Your task to perform on an android device: set the stopwatch Image 0: 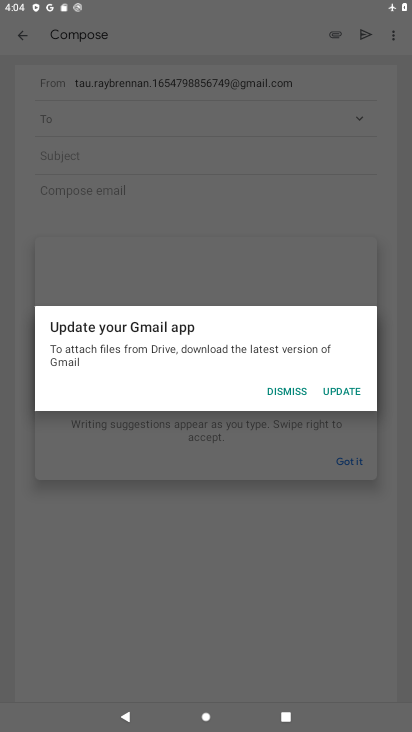
Step 0: press home button
Your task to perform on an android device: set the stopwatch Image 1: 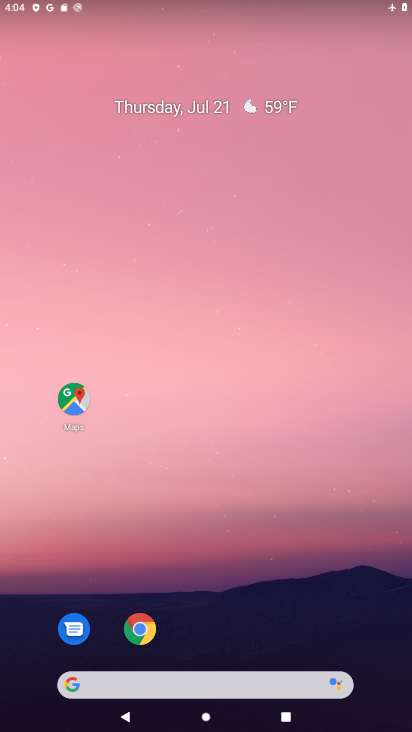
Step 1: drag from (242, 584) to (229, 113)
Your task to perform on an android device: set the stopwatch Image 2: 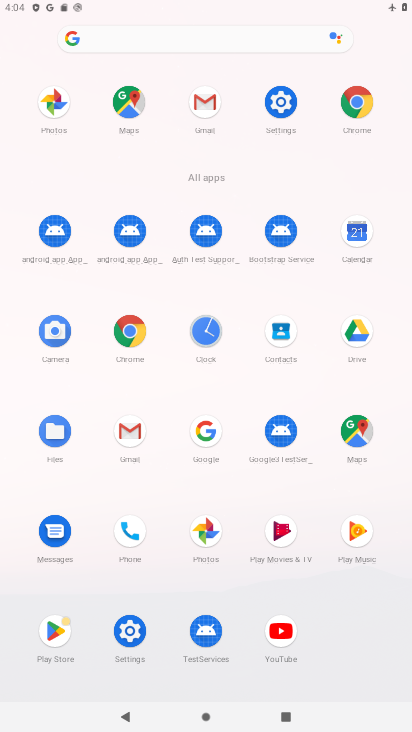
Step 2: click (201, 336)
Your task to perform on an android device: set the stopwatch Image 3: 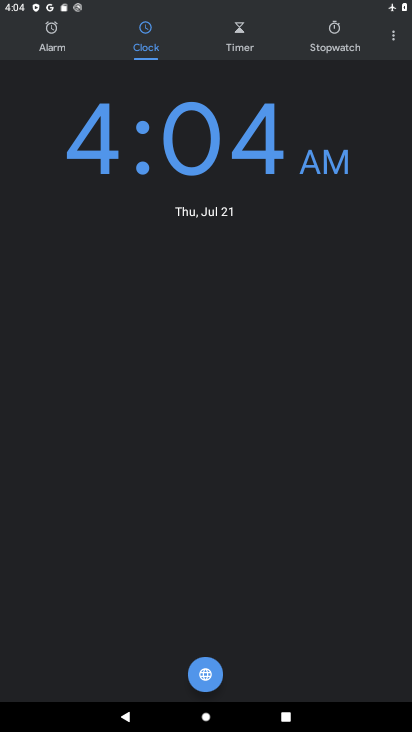
Step 3: click (336, 35)
Your task to perform on an android device: set the stopwatch Image 4: 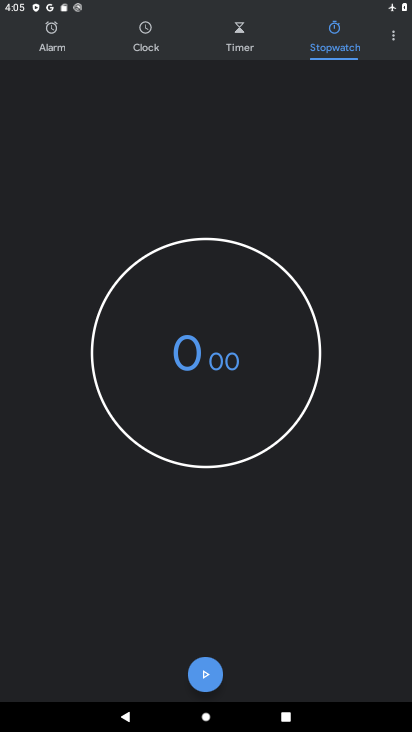
Step 4: task complete